Your task to perform on an android device: snooze an email in the gmail app Image 0: 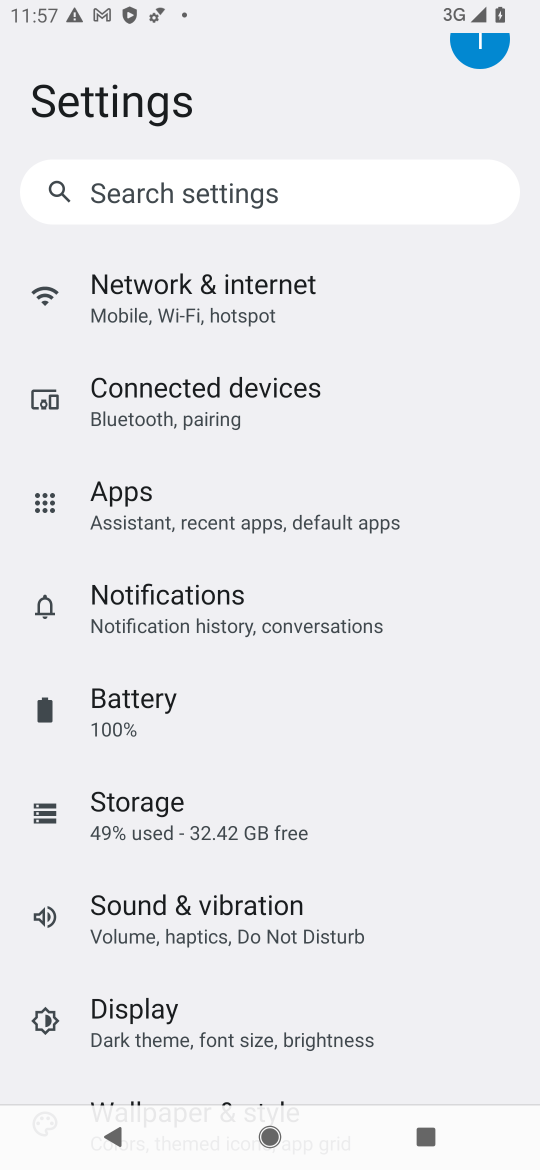
Step 0: press home button
Your task to perform on an android device: snooze an email in the gmail app Image 1: 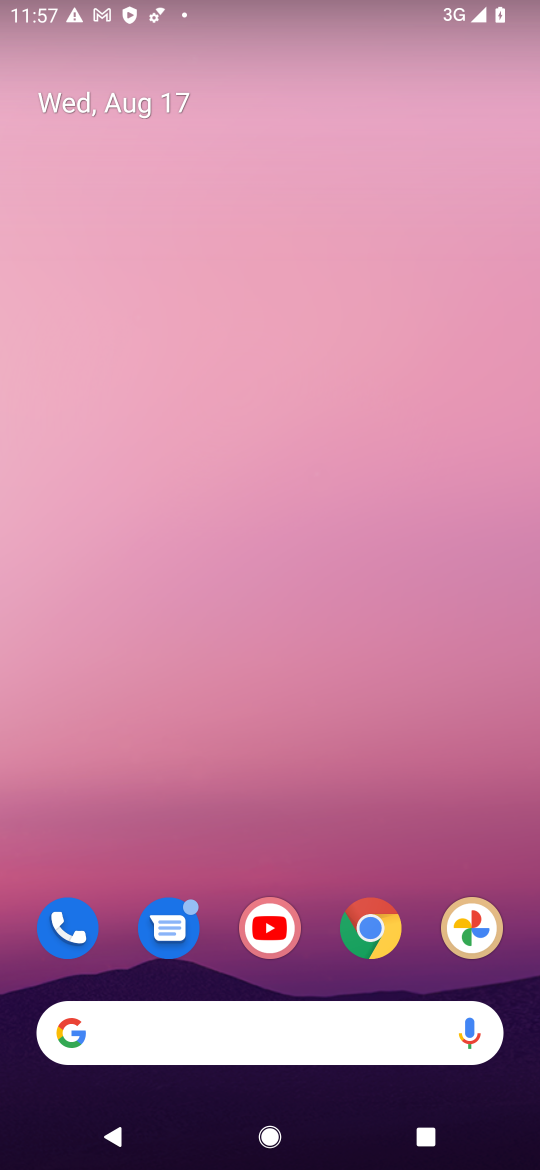
Step 1: drag from (313, 857) to (287, 188)
Your task to perform on an android device: snooze an email in the gmail app Image 2: 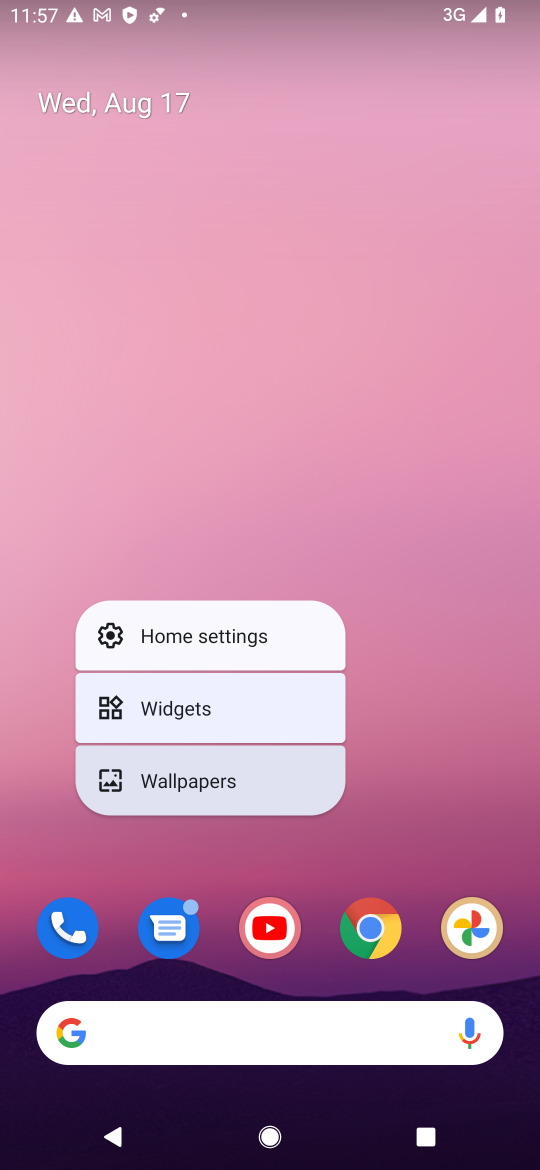
Step 2: click (387, 794)
Your task to perform on an android device: snooze an email in the gmail app Image 3: 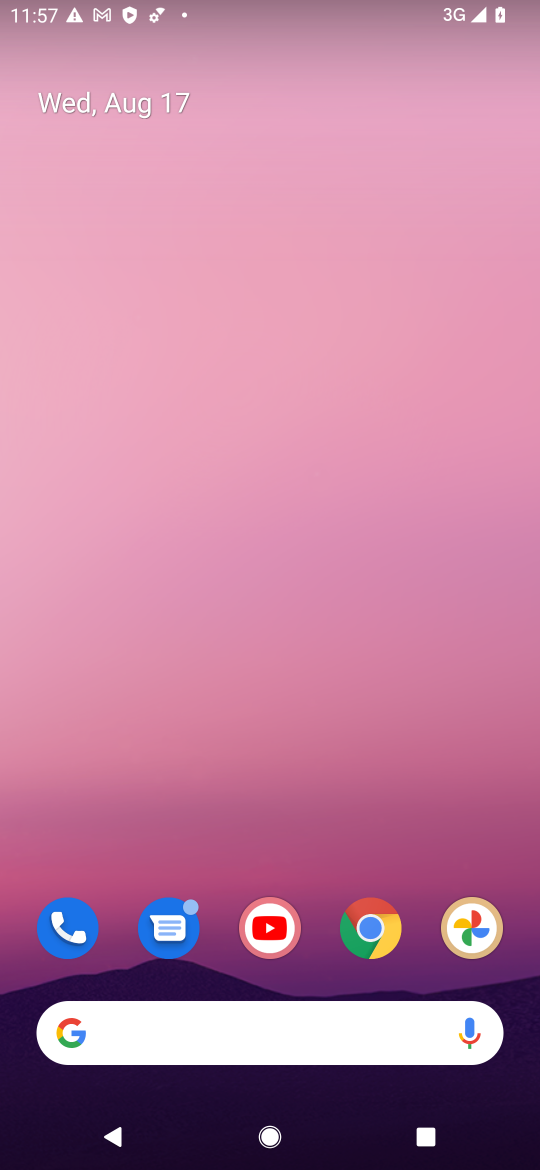
Step 3: drag from (346, 815) to (335, 238)
Your task to perform on an android device: snooze an email in the gmail app Image 4: 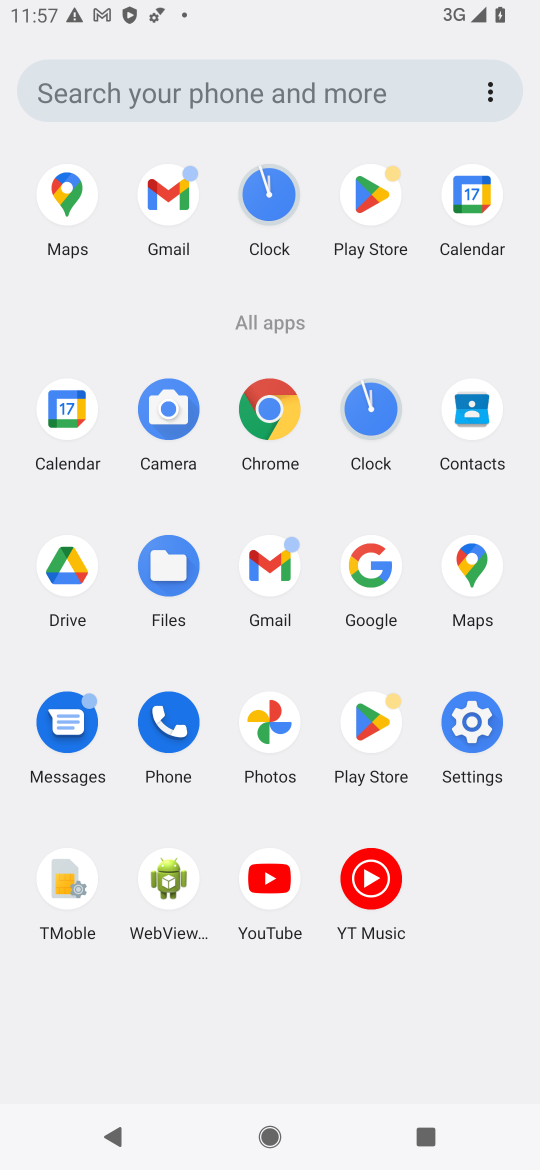
Step 4: click (154, 189)
Your task to perform on an android device: snooze an email in the gmail app Image 5: 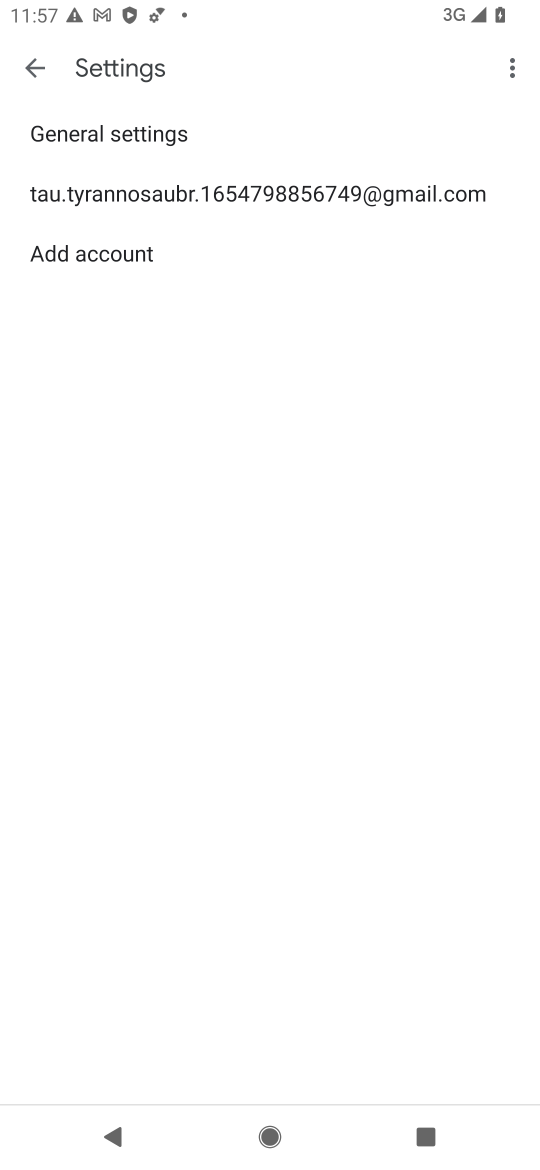
Step 5: click (40, 61)
Your task to perform on an android device: snooze an email in the gmail app Image 6: 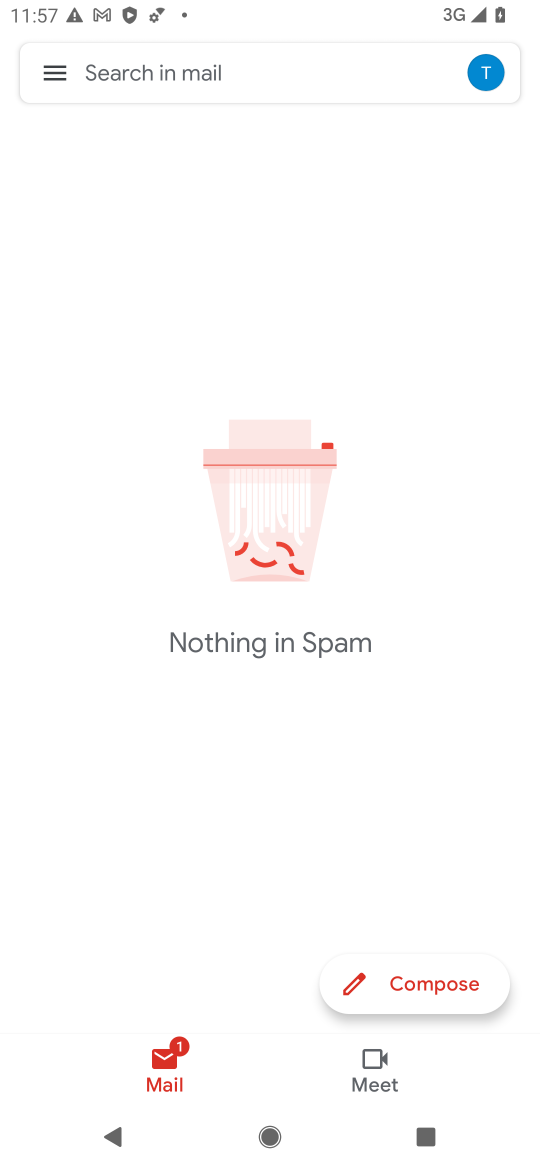
Step 6: click (49, 74)
Your task to perform on an android device: snooze an email in the gmail app Image 7: 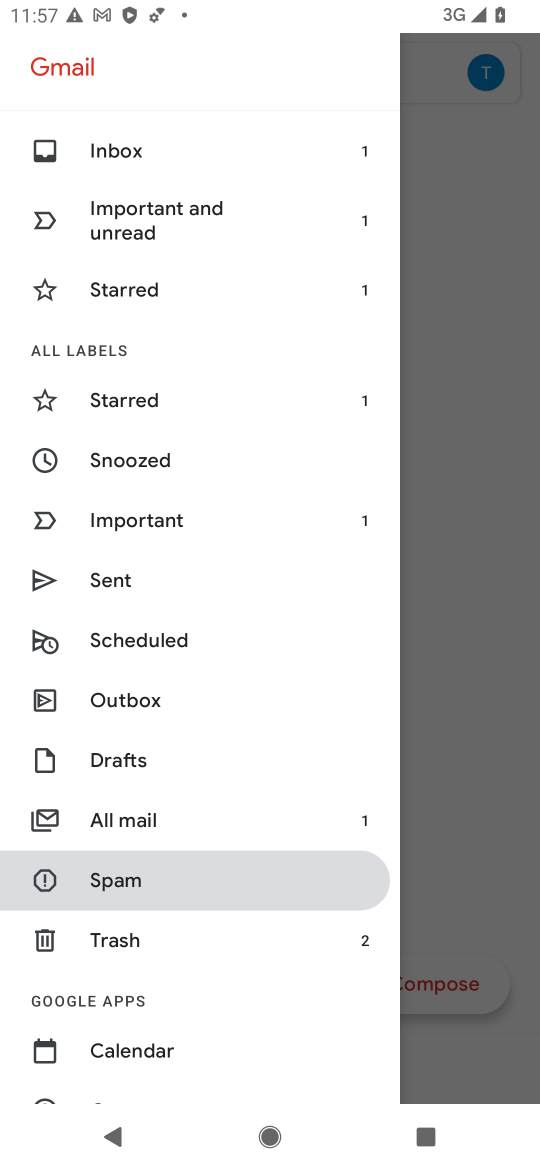
Step 7: click (156, 822)
Your task to perform on an android device: snooze an email in the gmail app Image 8: 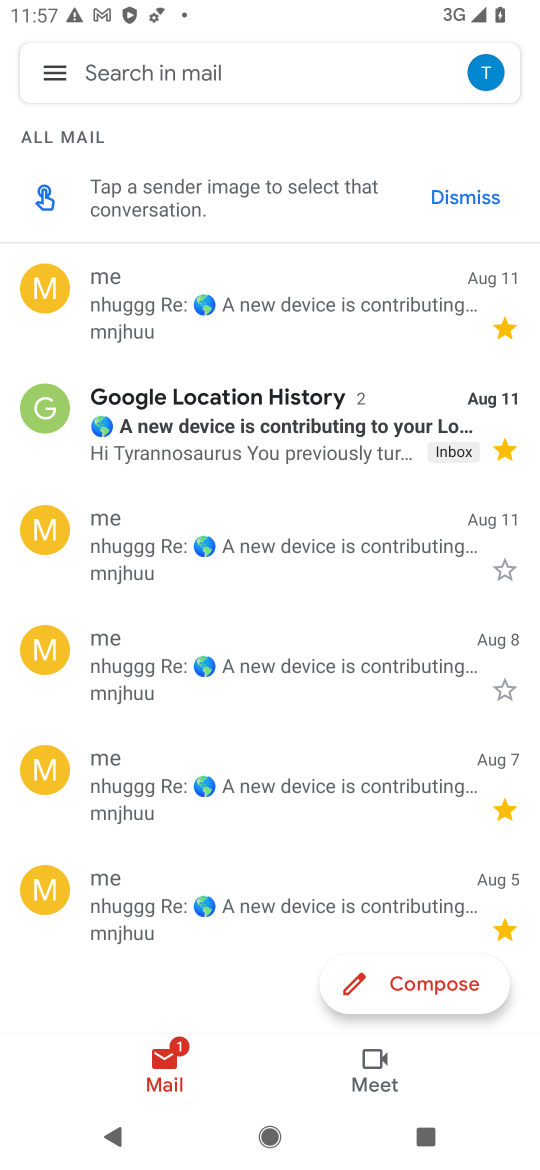
Step 8: click (303, 649)
Your task to perform on an android device: snooze an email in the gmail app Image 9: 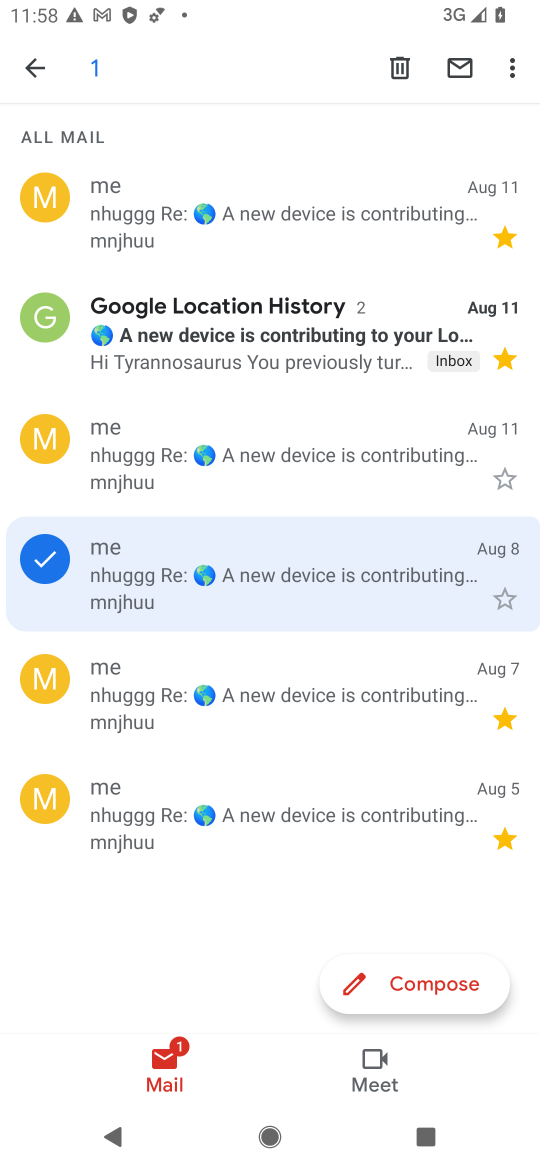
Step 9: click (496, 64)
Your task to perform on an android device: snooze an email in the gmail app Image 10: 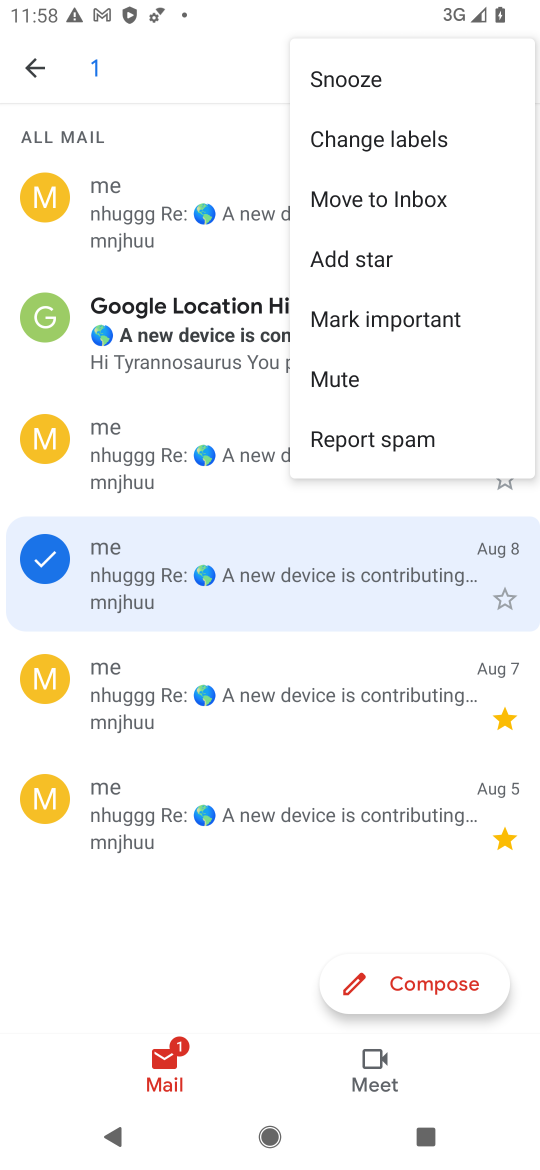
Step 10: click (424, 78)
Your task to perform on an android device: snooze an email in the gmail app Image 11: 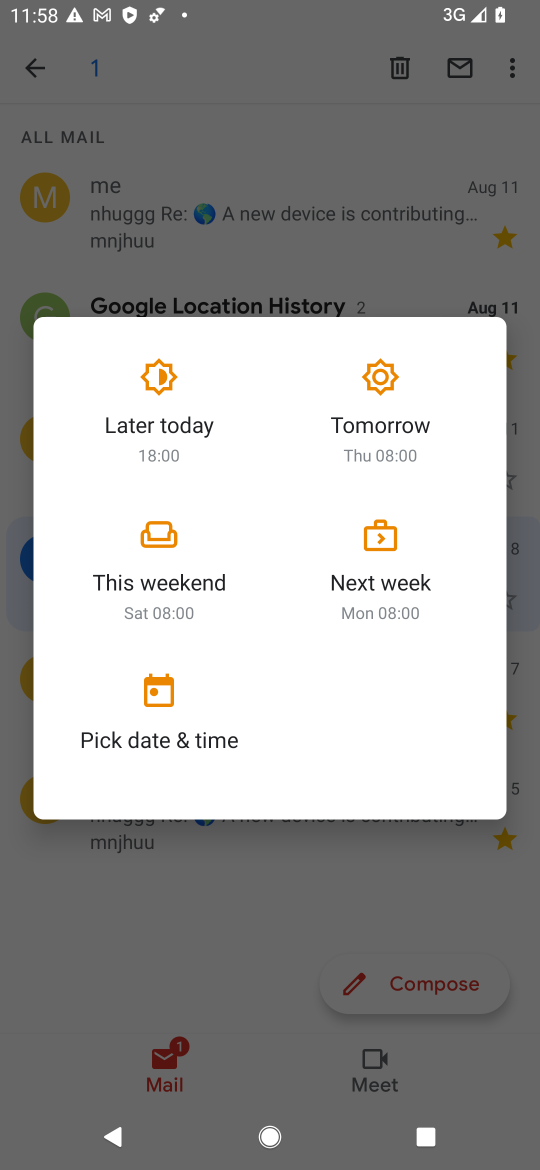
Step 11: click (355, 394)
Your task to perform on an android device: snooze an email in the gmail app Image 12: 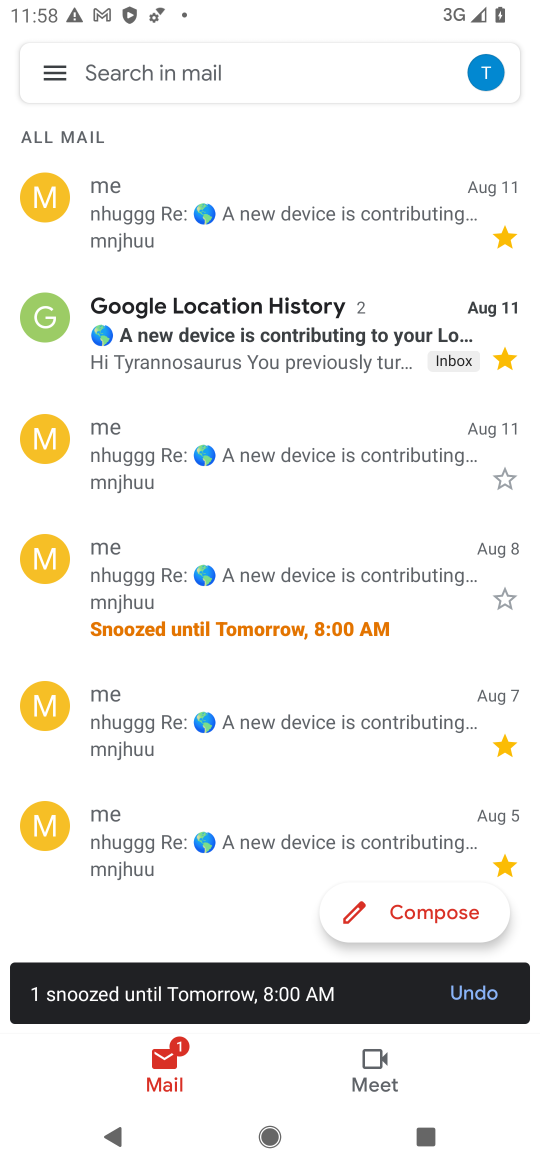
Step 12: task complete